Your task to perform on an android device: turn on showing notifications on the lock screen Image 0: 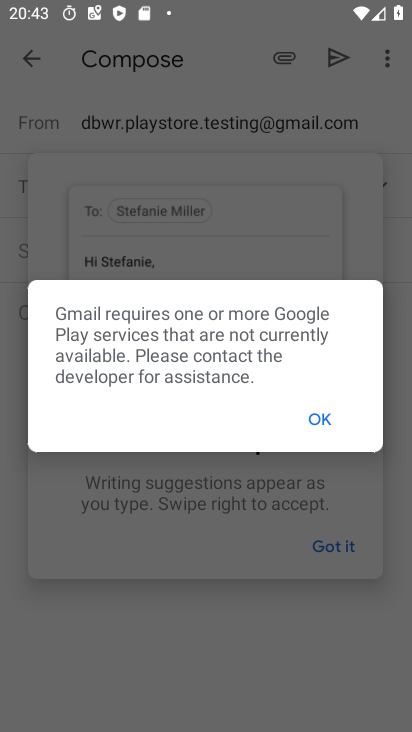
Step 0: task complete